Your task to perform on an android device: Open Wikipedia Image 0: 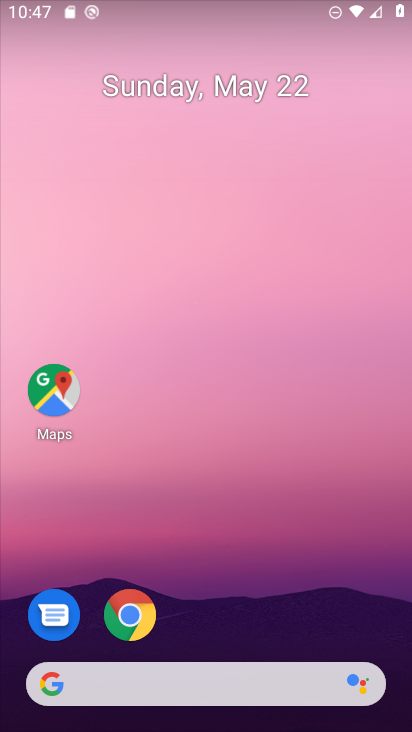
Step 0: drag from (287, 619) to (276, 80)
Your task to perform on an android device: Open Wikipedia Image 1: 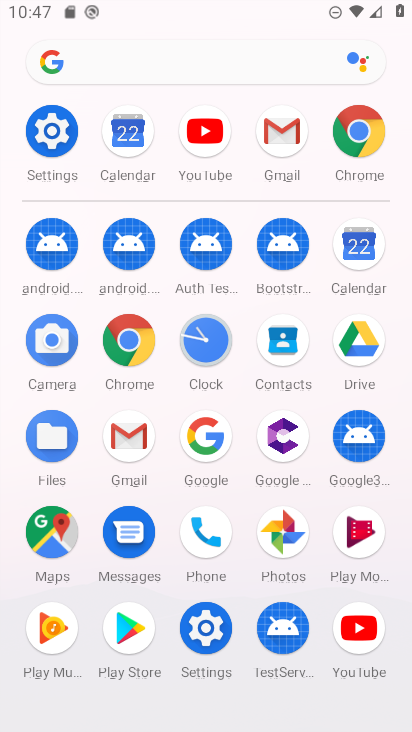
Step 1: click (358, 130)
Your task to perform on an android device: Open Wikipedia Image 2: 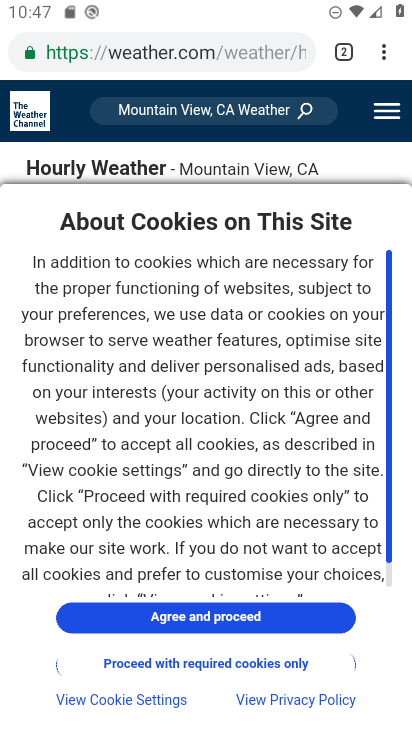
Step 2: click (205, 61)
Your task to perform on an android device: Open Wikipedia Image 3: 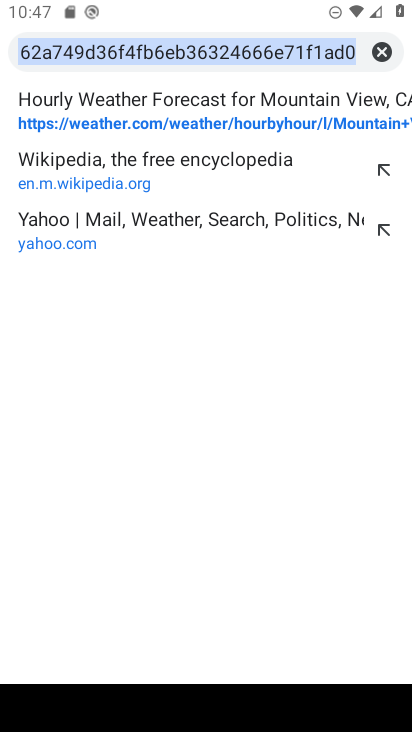
Step 3: click (117, 183)
Your task to perform on an android device: Open Wikipedia Image 4: 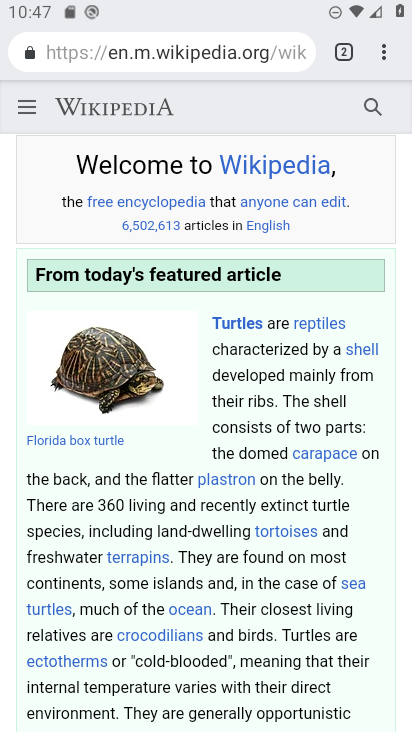
Step 4: task complete